Your task to perform on an android device: manage bookmarks in the chrome app Image 0: 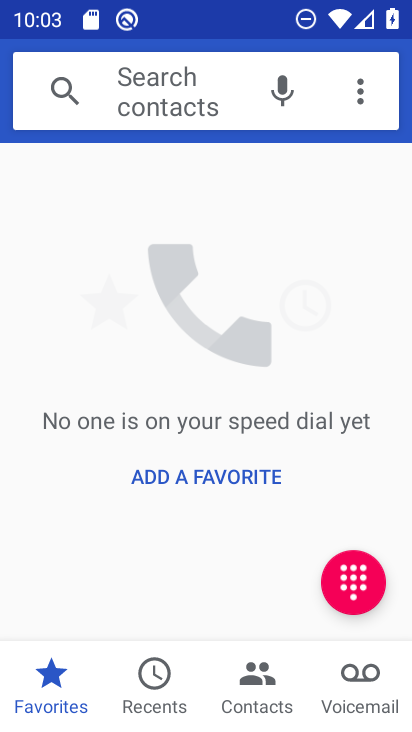
Step 0: press home button
Your task to perform on an android device: manage bookmarks in the chrome app Image 1: 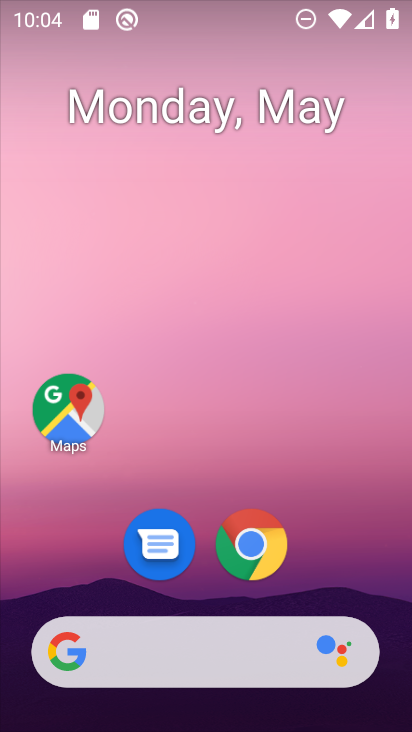
Step 1: click (281, 530)
Your task to perform on an android device: manage bookmarks in the chrome app Image 2: 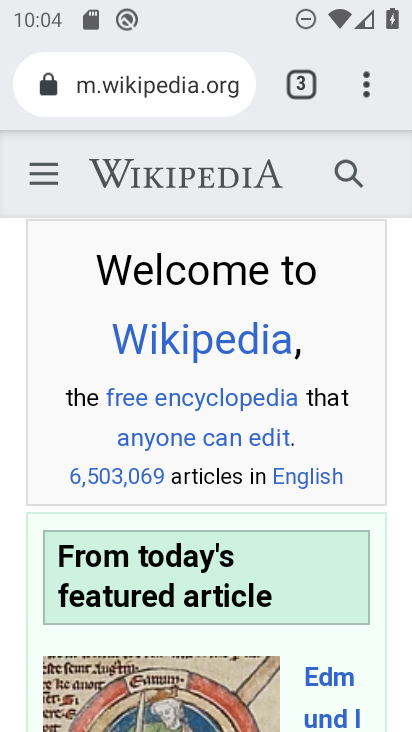
Step 2: click (373, 84)
Your task to perform on an android device: manage bookmarks in the chrome app Image 3: 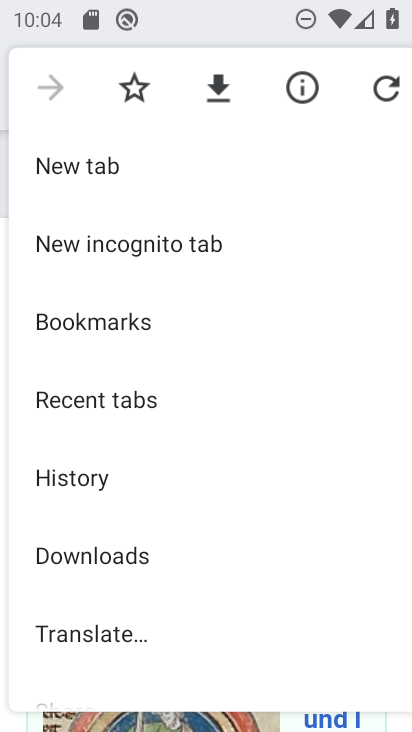
Step 3: click (69, 335)
Your task to perform on an android device: manage bookmarks in the chrome app Image 4: 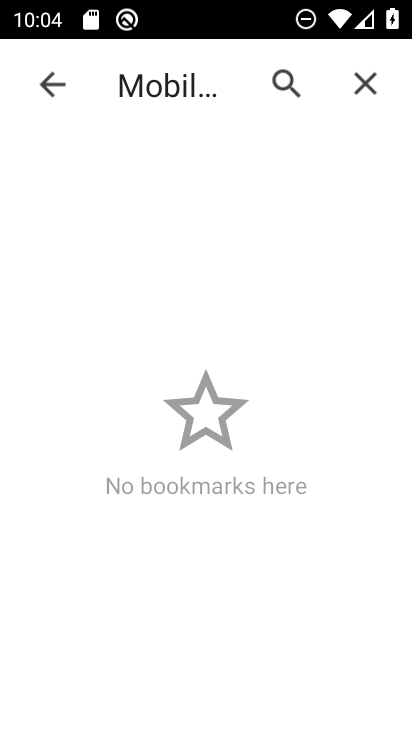
Step 4: click (142, 692)
Your task to perform on an android device: manage bookmarks in the chrome app Image 5: 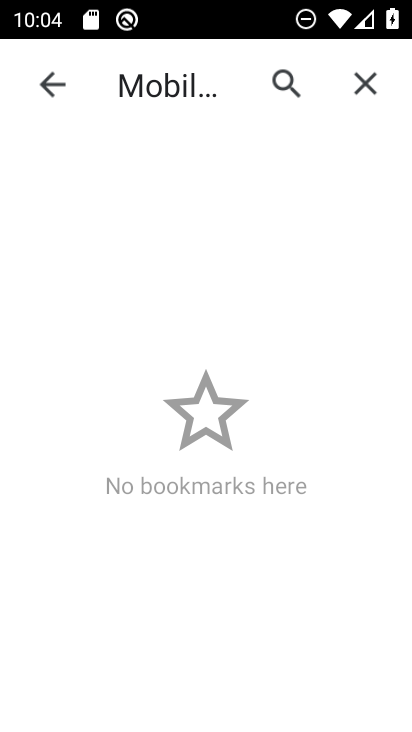
Step 5: drag from (142, 692) to (151, 261)
Your task to perform on an android device: manage bookmarks in the chrome app Image 6: 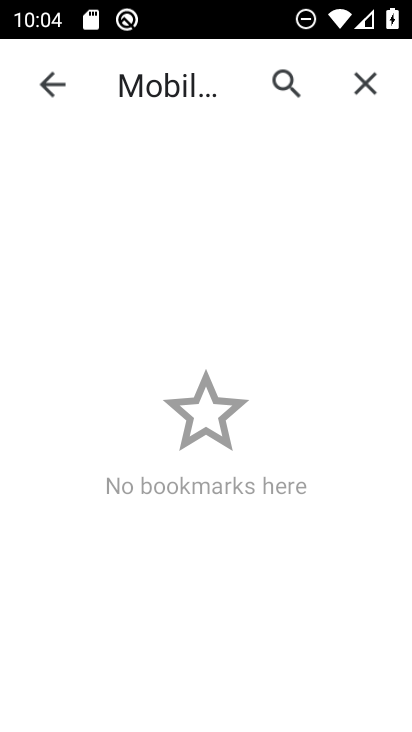
Step 6: click (151, 261)
Your task to perform on an android device: manage bookmarks in the chrome app Image 7: 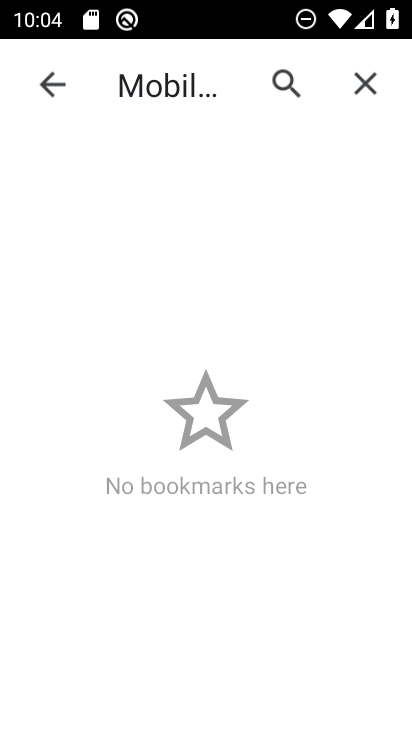
Step 7: click (151, 261)
Your task to perform on an android device: manage bookmarks in the chrome app Image 8: 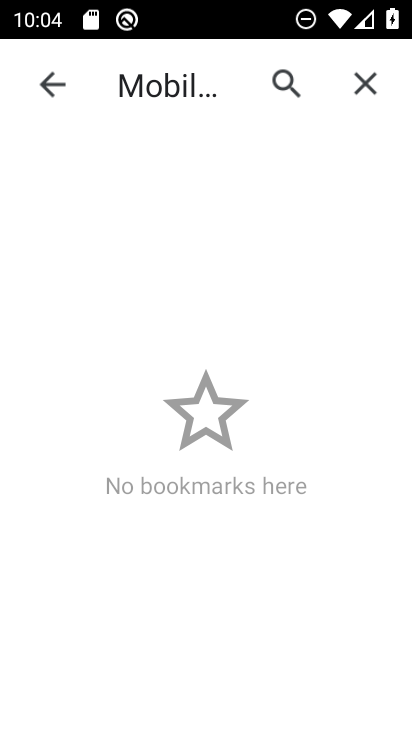
Step 8: click (151, 261)
Your task to perform on an android device: manage bookmarks in the chrome app Image 9: 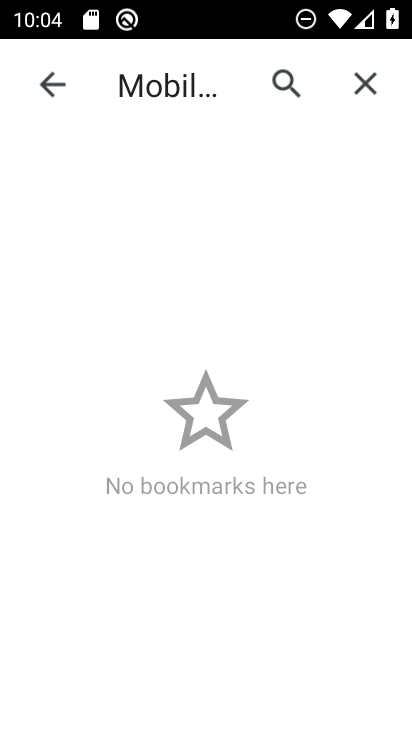
Step 9: click (151, 261)
Your task to perform on an android device: manage bookmarks in the chrome app Image 10: 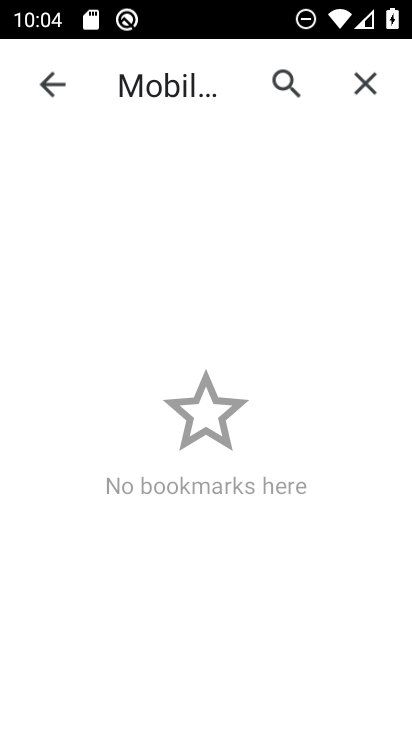
Step 10: click (151, 261)
Your task to perform on an android device: manage bookmarks in the chrome app Image 11: 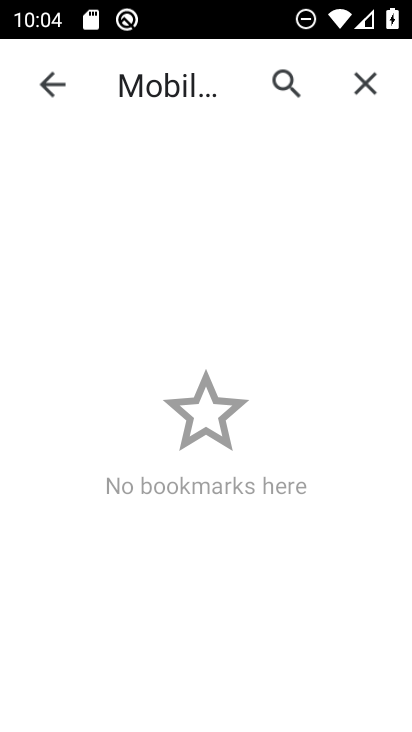
Step 11: task complete